Your task to perform on an android device: check android version Image 0: 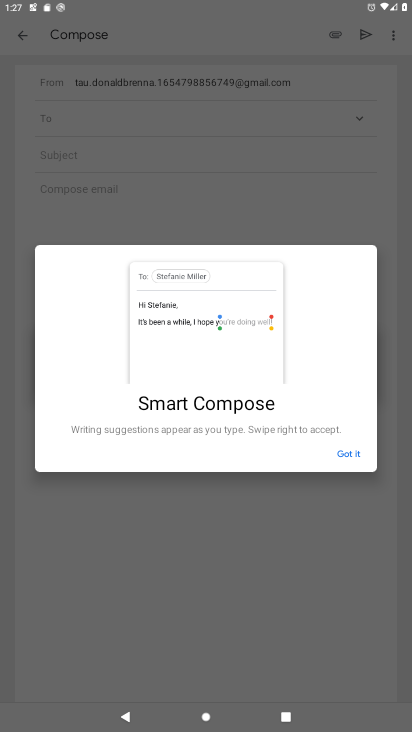
Step 0: press home button
Your task to perform on an android device: check android version Image 1: 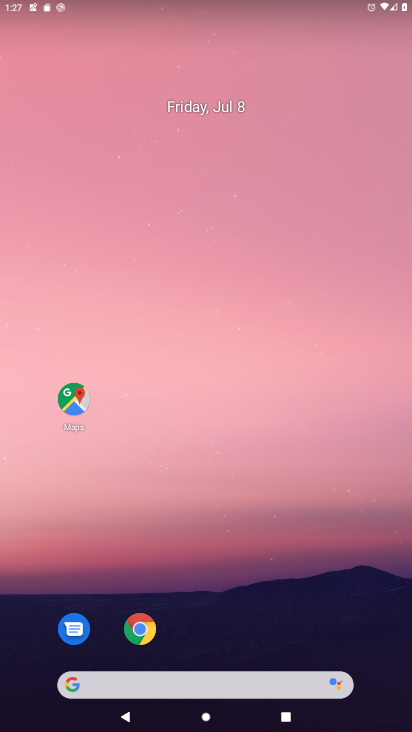
Step 1: drag from (277, 614) to (320, 10)
Your task to perform on an android device: check android version Image 2: 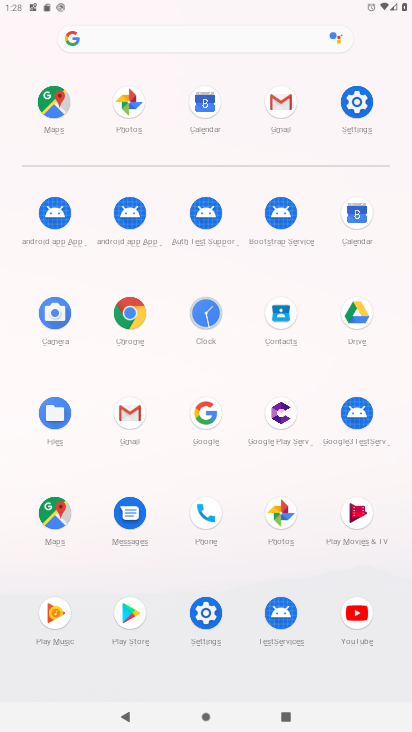
Step 2: click (363, 117)
Your task to perform on an android device: check android version Image 3: 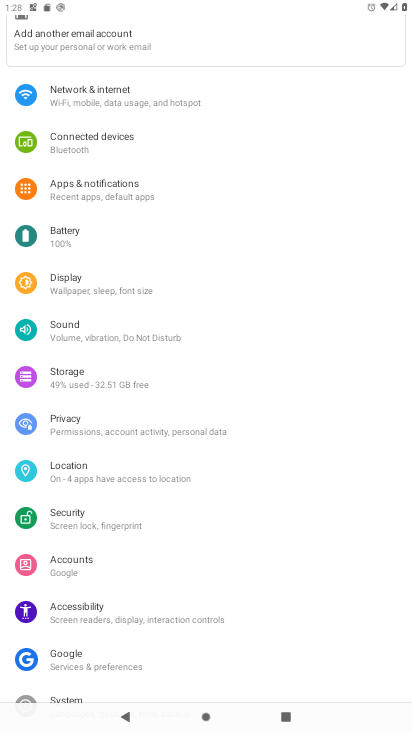
Step 3: drag from (132, 638) to (222, 2)
Your task to perform on an android device: check android version Image 4: 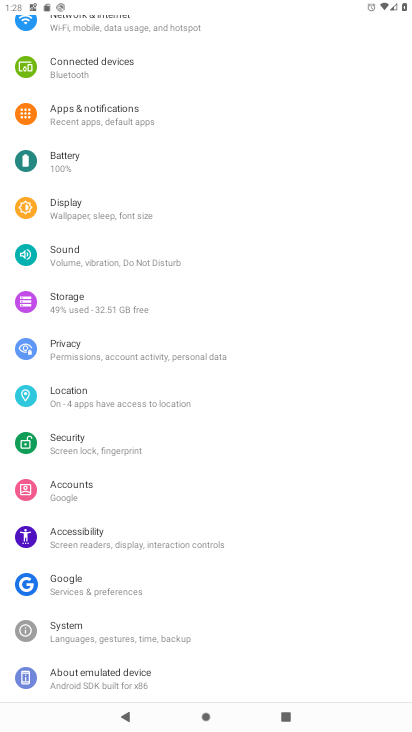
Step 4: click (102, 670)
Your task to perform on an android device: check android version Image 5: 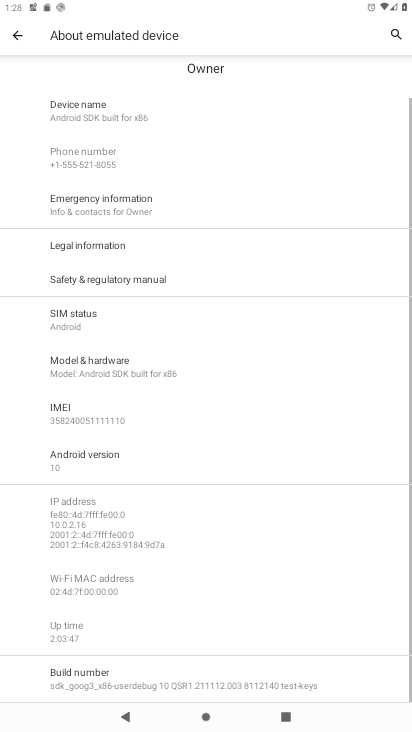
Step 5: click (103, 468)
Your task to perform on an android device: check android version Image 6: 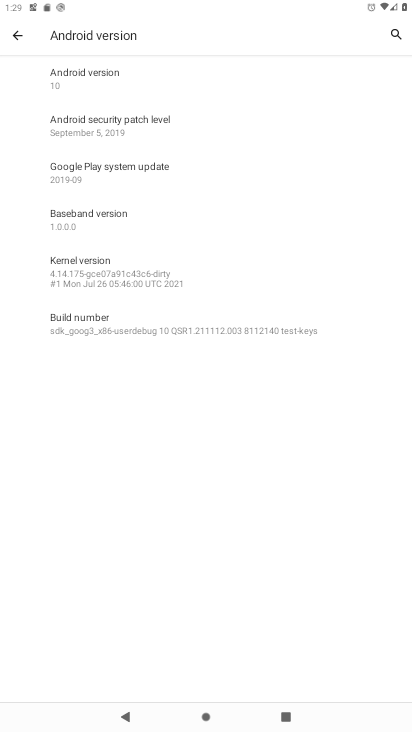
Step 6: click (89, 90)
Your task to perform on an android device: check android version Image 7: 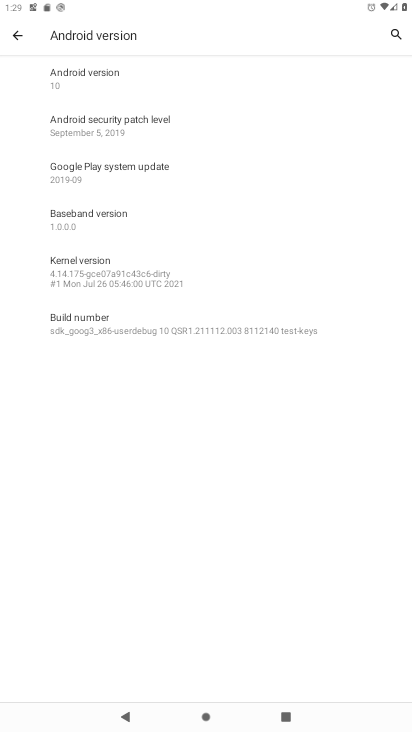
Step 7: task complete